Your task to perform on an android device: Open Yahoo.com Image 0: 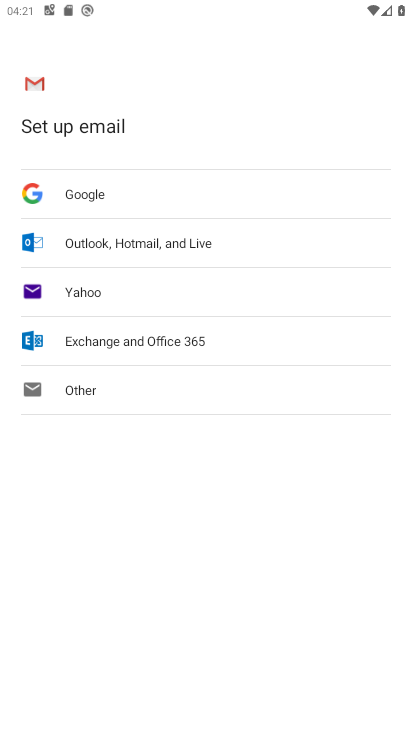
Step 0: press home button
Your task to perform on an android device: Open Yahoo.com Image 1: 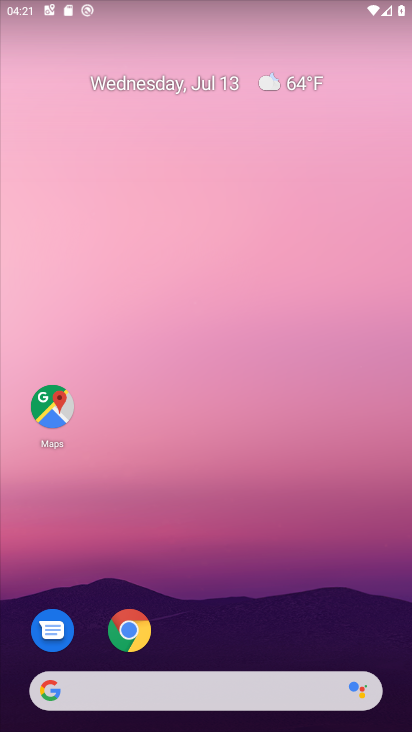
Step 1: click (132, 633)
Your task to perform on an android device: Open Yahoo.com Image 2: 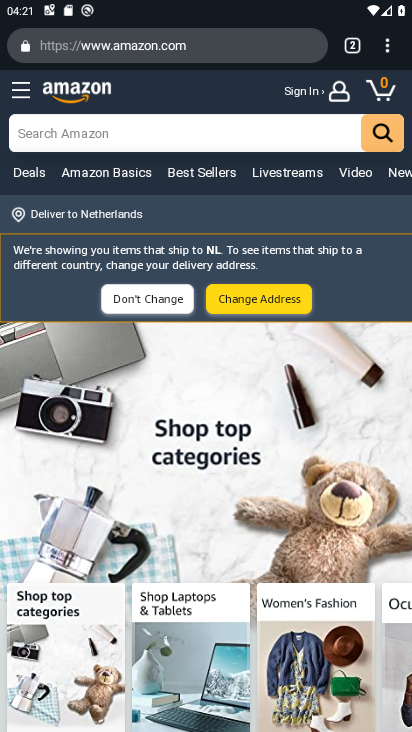
Step 2: click (354, 51)
Your task to perform on an android device: Open Yahoo.com Image 3: 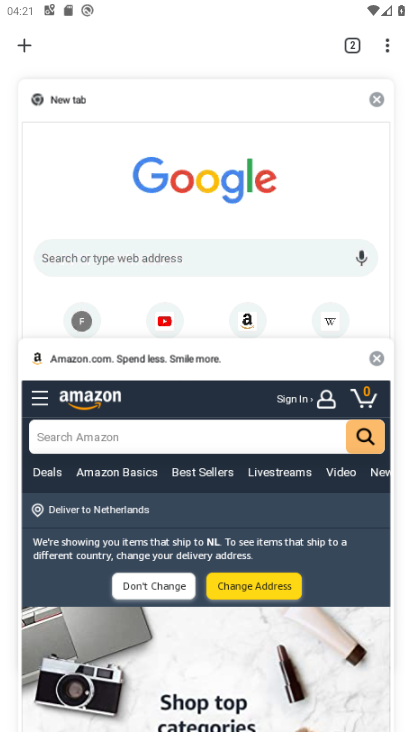
Step 3: click (31, 33)
Your task to perform on an android device: Open Yahoo.com Image 4: 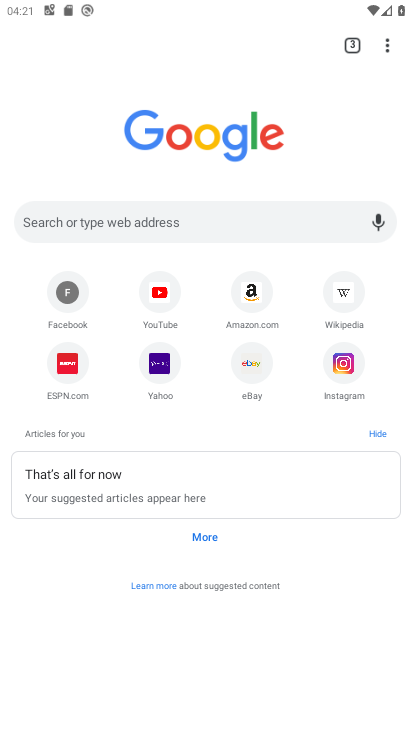
Step 4: click (169, 363)
Your task to perform on an android device: Open Yahoo.com Image 5: 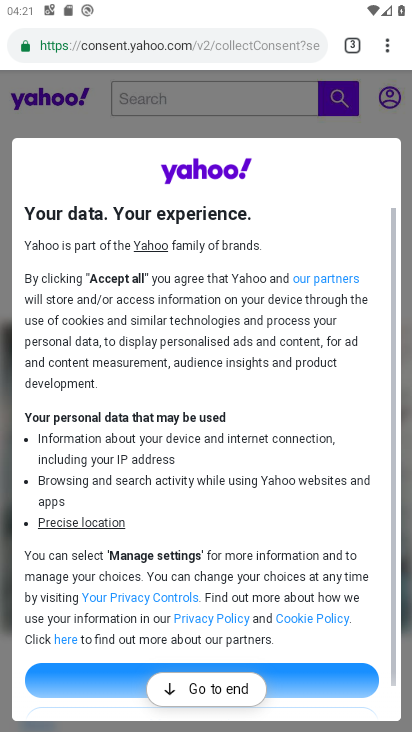
Step 5: task complete